Your task to perform on an android device: install app "Google Translate" Image 0: 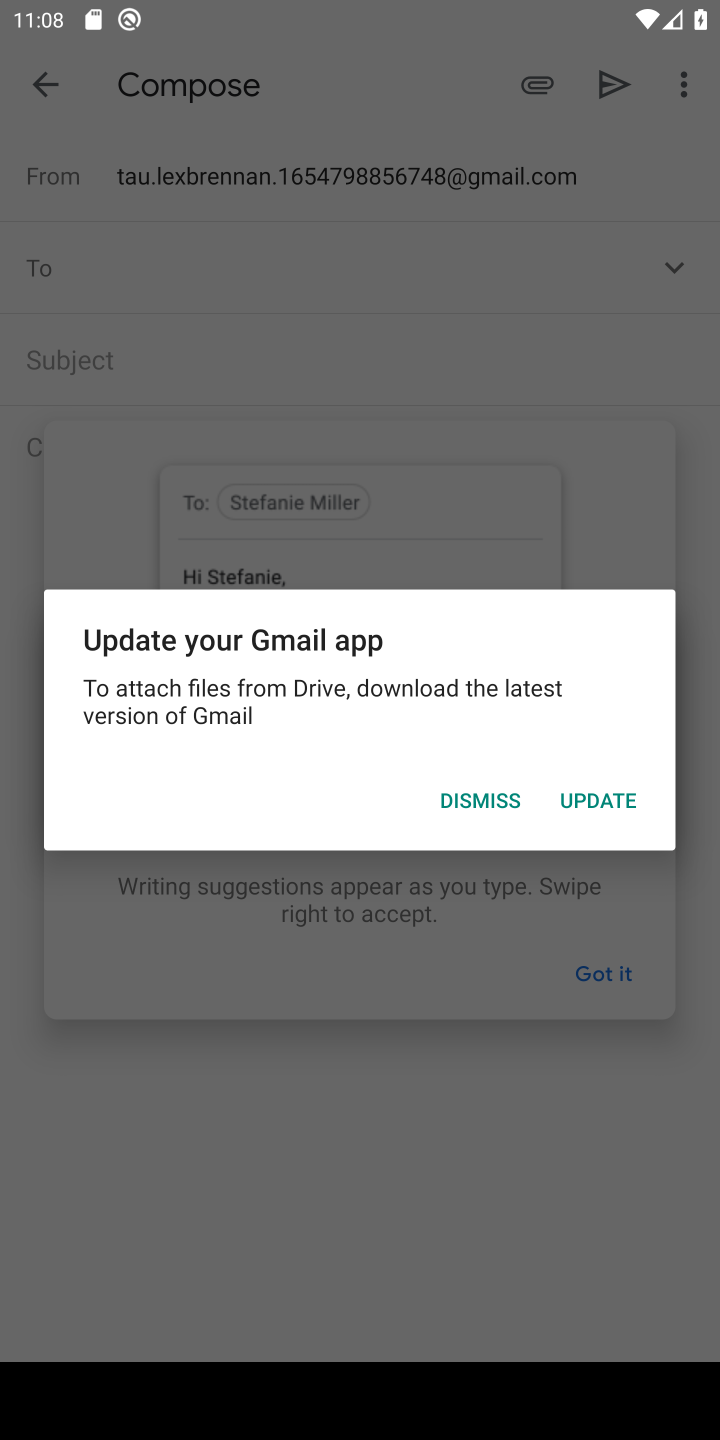
Step 0: press home button
Your task to perform on an android device: install app "Google Translate" Image 1: 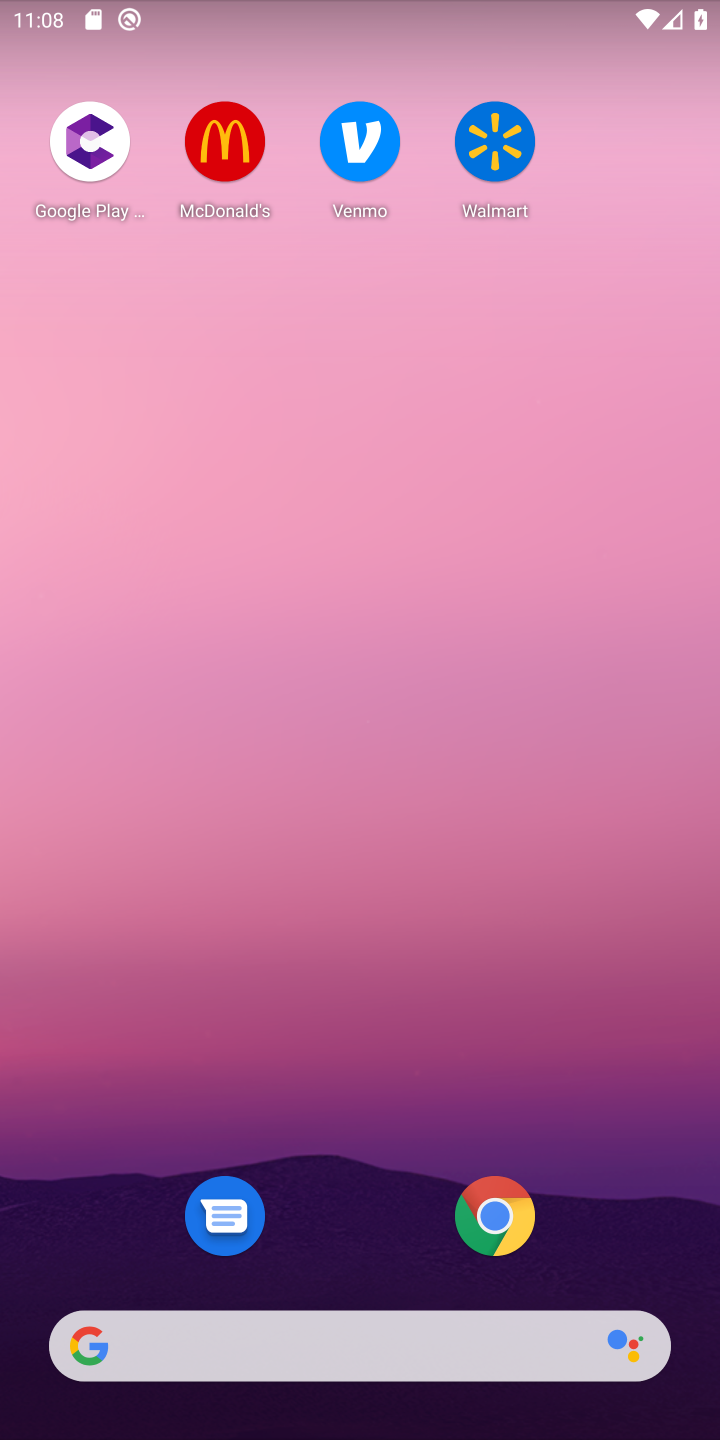
Step 1: drag from (619, 1166) to (442, 0)
Your task to perform on an android device: install app "Google Translate" Image 2: 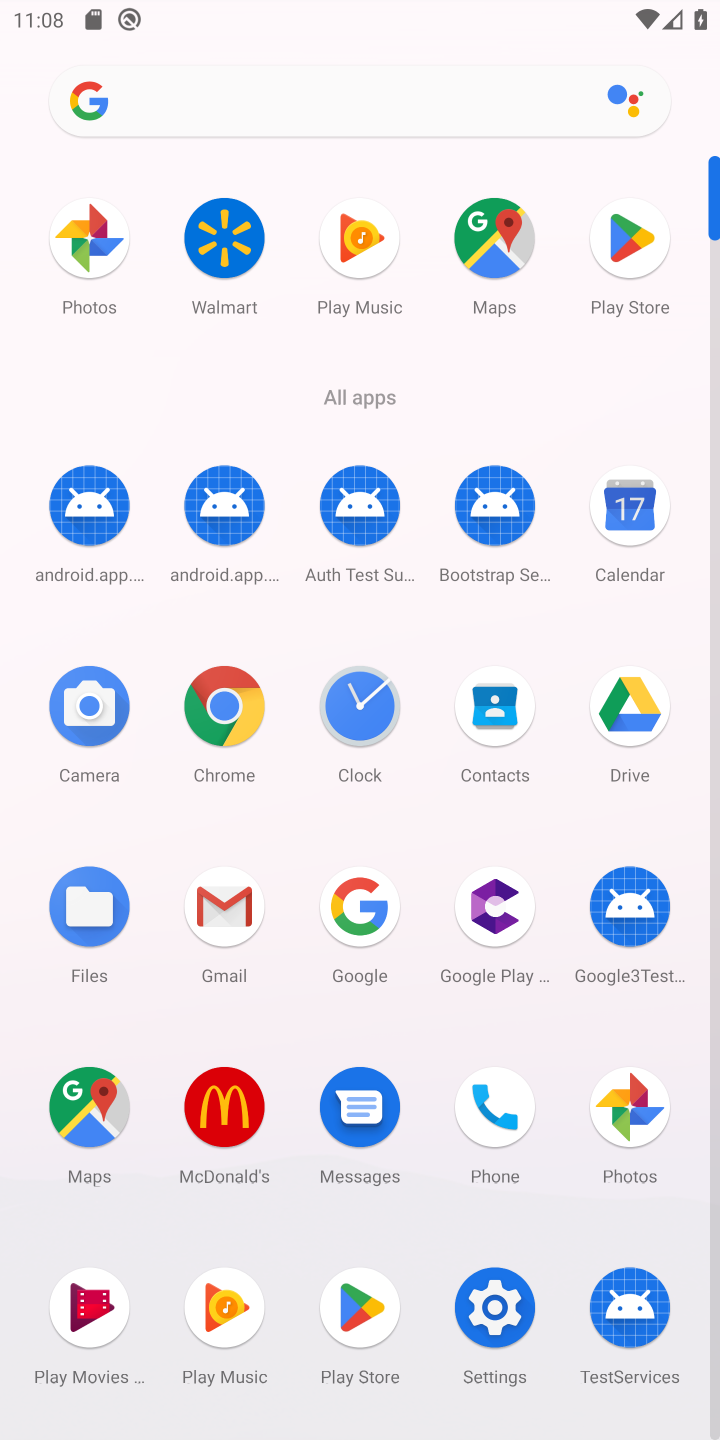
Step 2: click (627, 252)
Your task to perform on an android device: install app "Google Translate" Image 3: 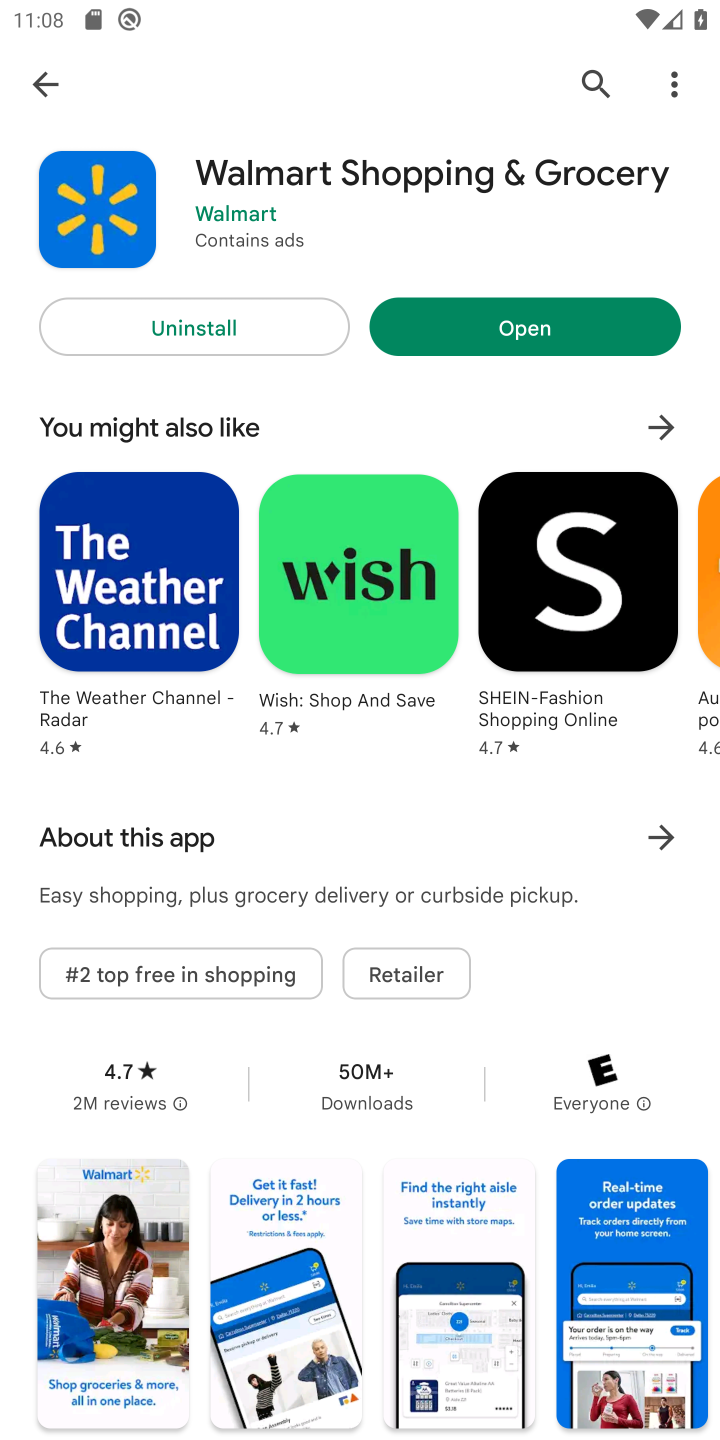
Step 3: click (44, 75)
Your task to perform on an android device: install app "Google Translate" Image 4: 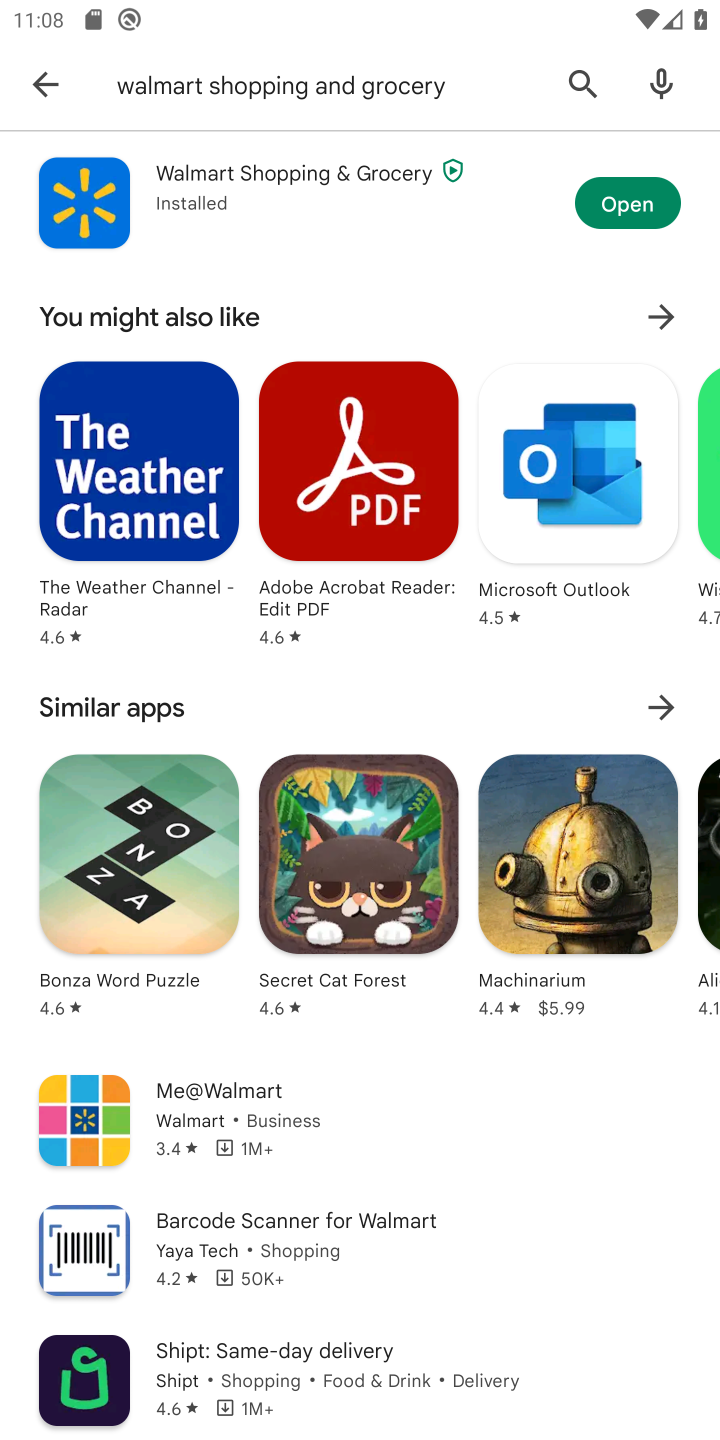
Step 4: click (582, 96)
Your task to perform on an android device: install app "Google Translate" Image 5: 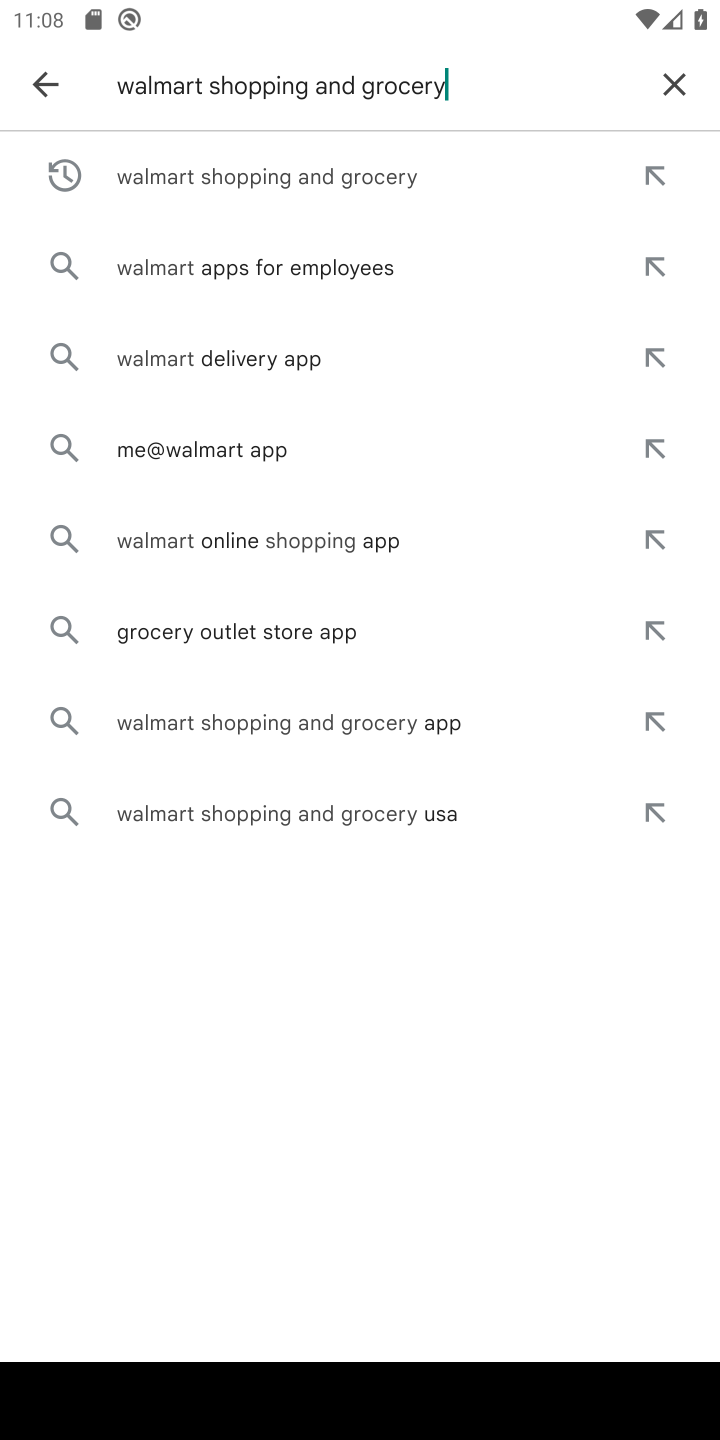
Step 5: click (677, 95)
Your task to perform on an android device: install app "Google Translate" Image 6: 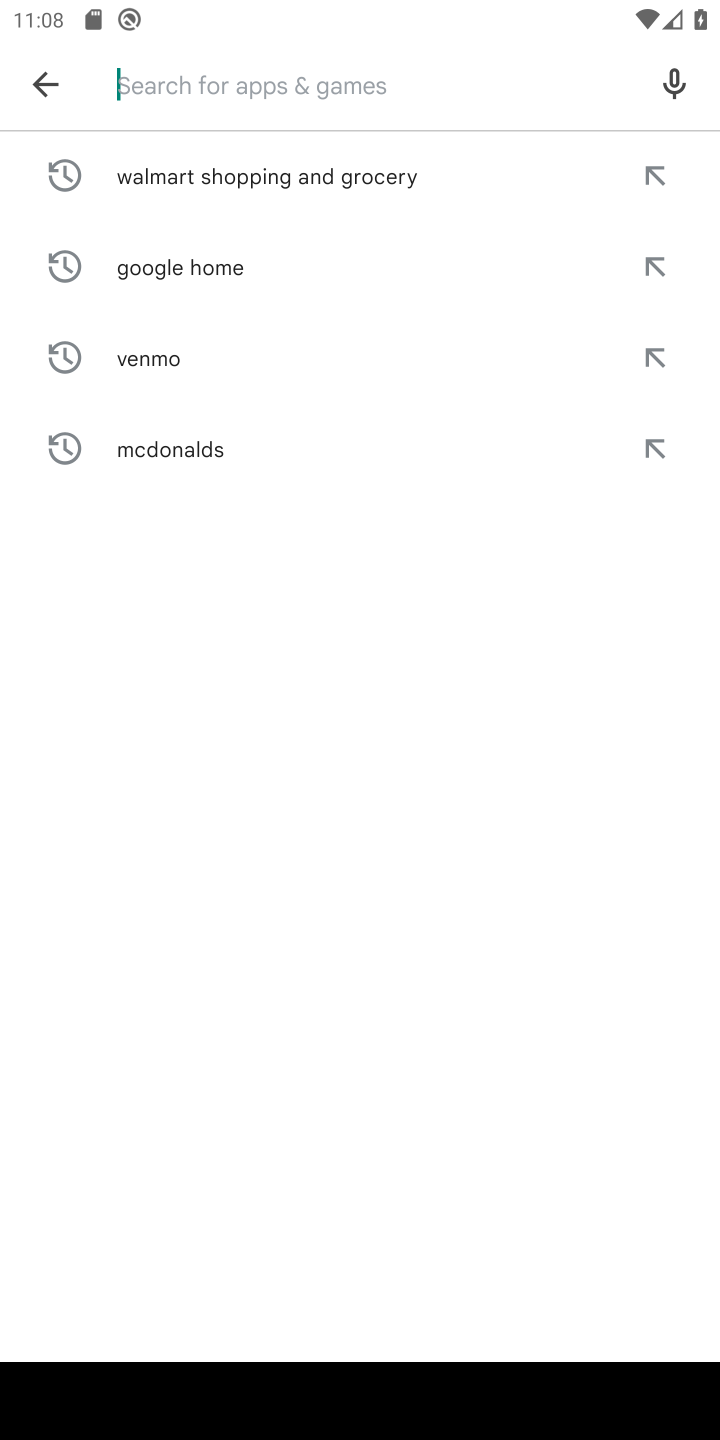
Step 6: type "google translate"
Your task to perform on an android device: install app "Google Translate" Image 7: 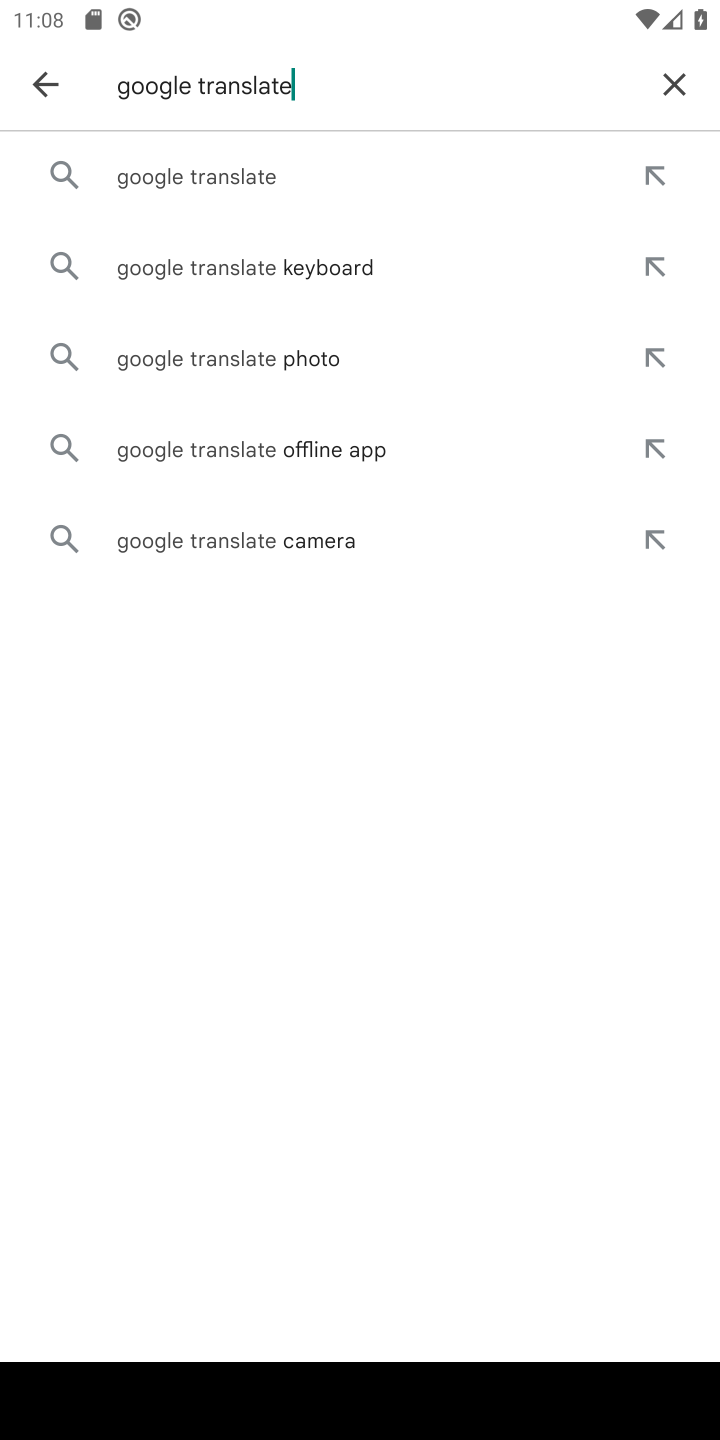
Step 7: click (305, 175)
Your task to perform on an android device: install app "Google Translate" Image 8: 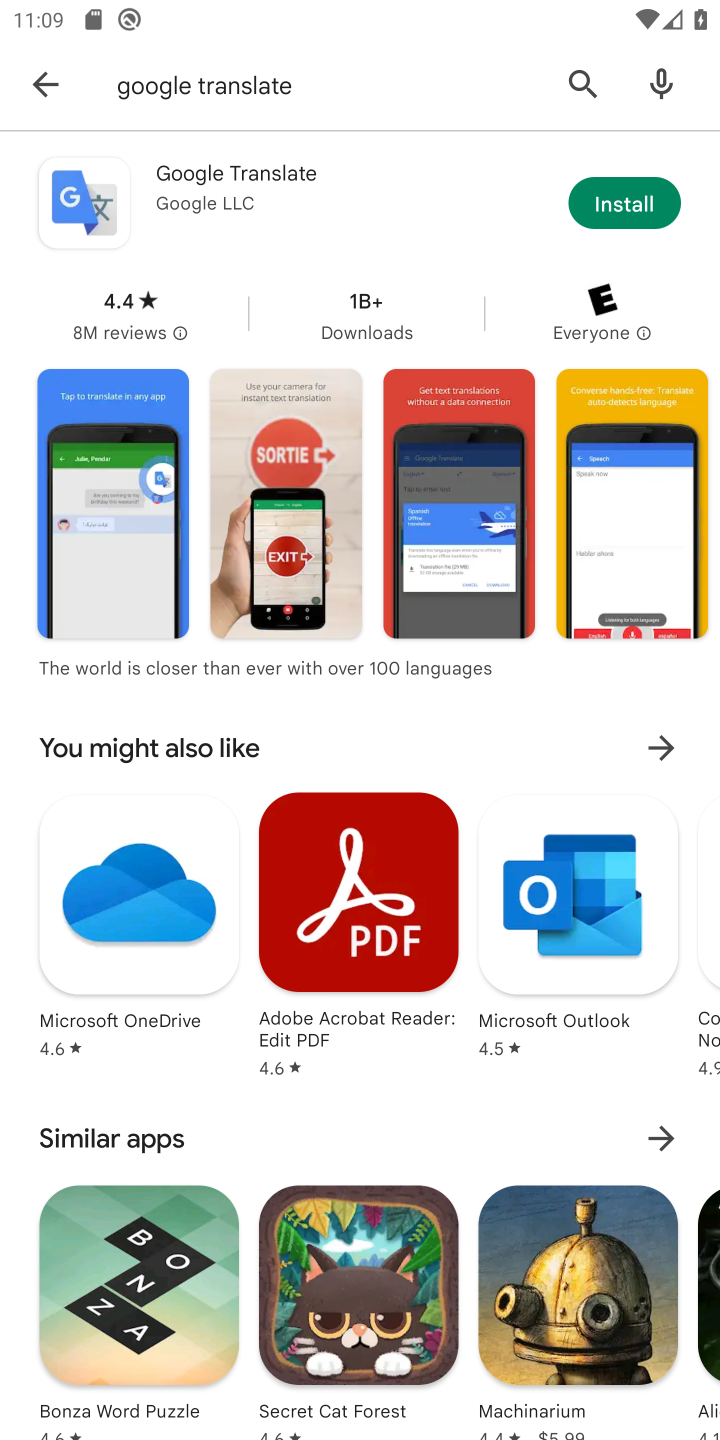
Step 8: click (612, 206)
Your task to perform on an android device: install app "Google Translate" Image 9: 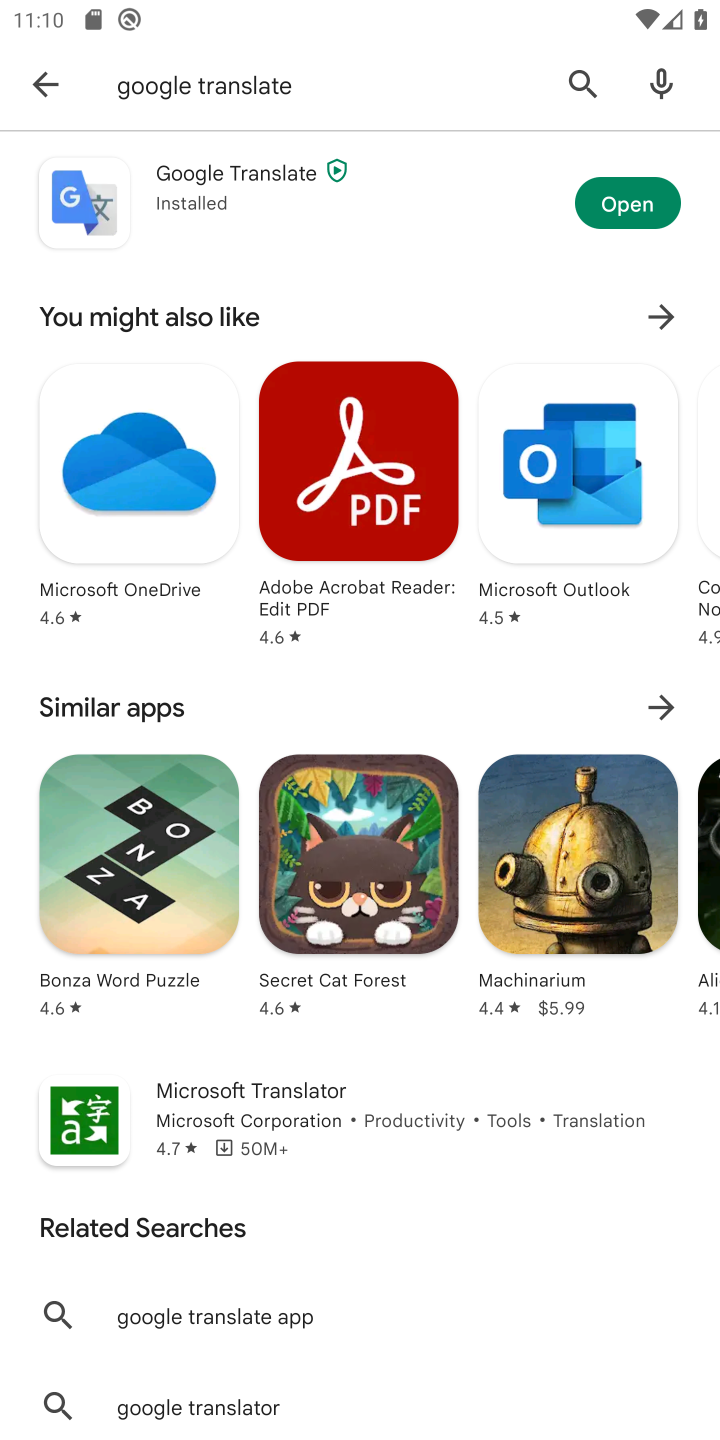
Step 9: task complete